Your task to perform on an android device: Open maps Image 0: 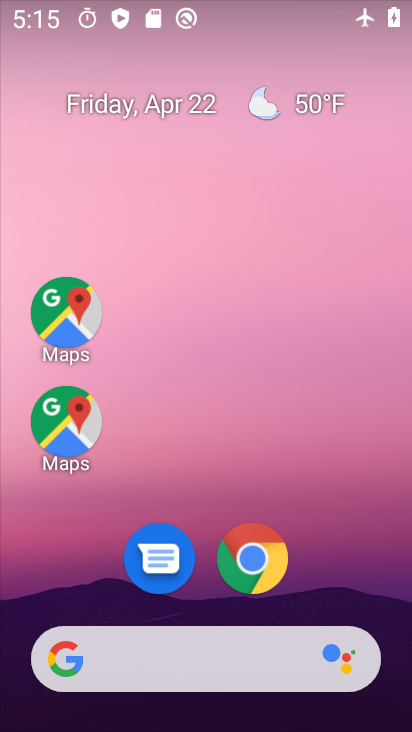
Step 0: drag from (341, 604) to (360, 145)
Your task to perform on an android device: Open maps Image 1: 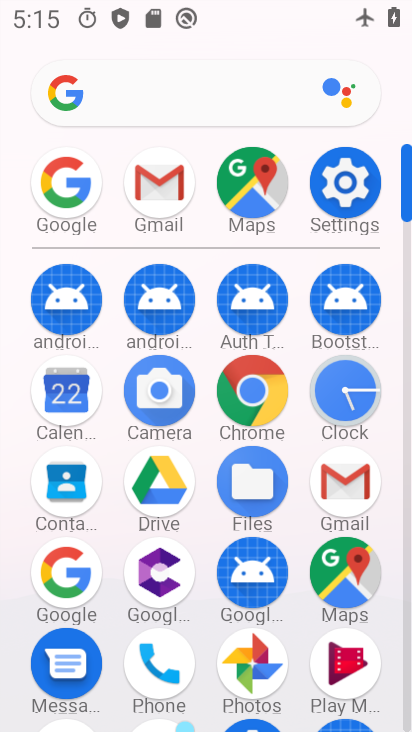
Step 1: click (354, 567)
Your task to perform on an android device: Open maps Image 2: 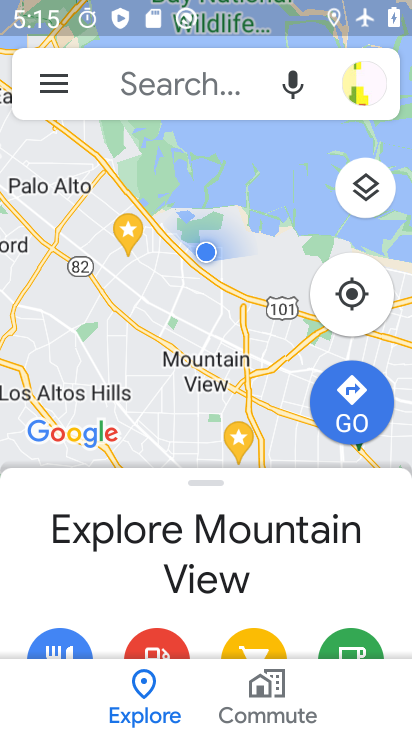
Step 2: click (238, 99)
Your task to perform on an android device: Open maps Image 3: 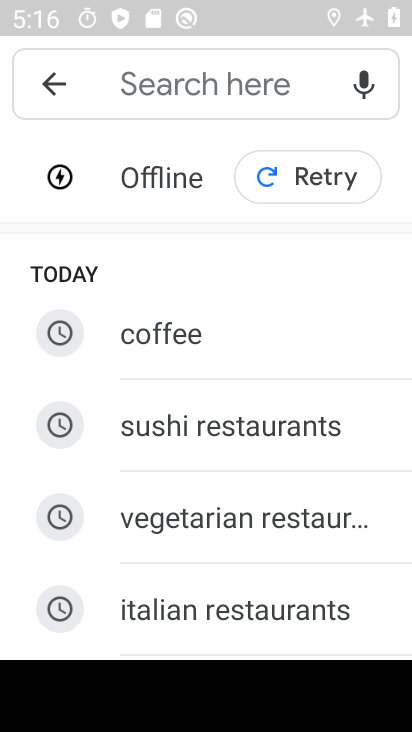
Step 3: press home button
Your task to perform on an android device: Open maps Image 4: 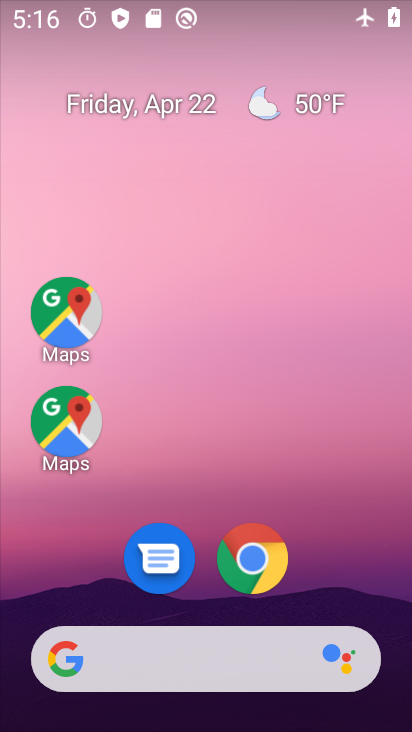
Step 4: click (80, 312)
Your task to perform on an android device: Open maps Image 5: 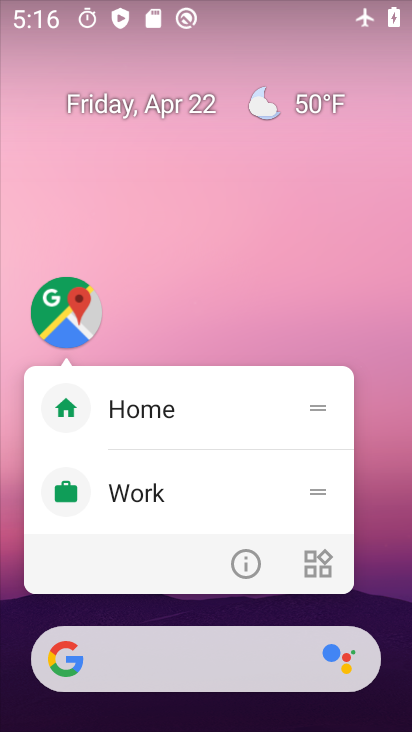
Step 5: click (61, 312)
Your task to perform on an android device: Open maps Image 6: 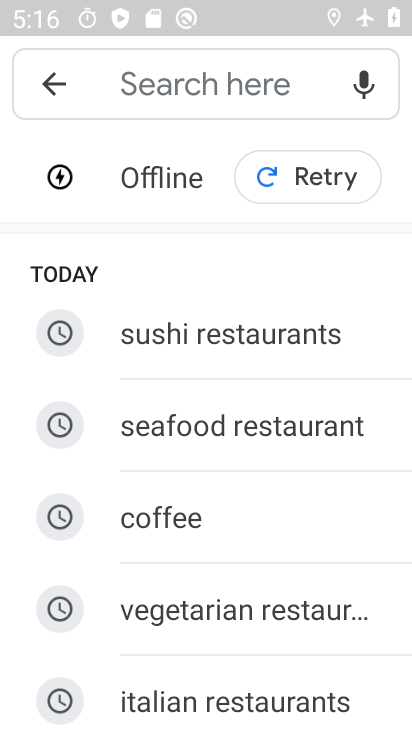
Step 6: task complete